Your task to perform on an android device: Open maps Image 0: 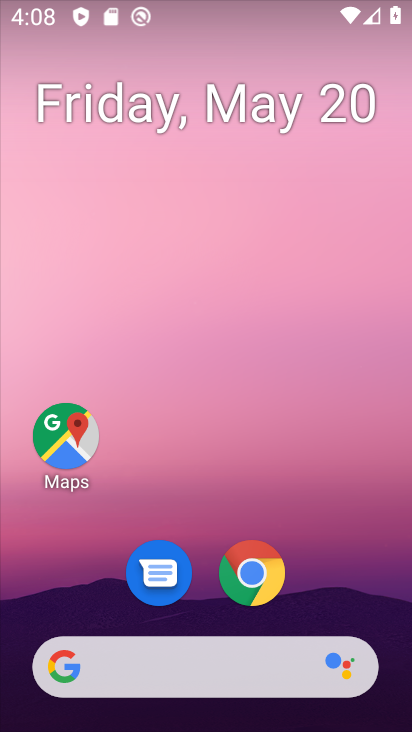
Step 0: click (62, 431)
Your task to perform on an android device: Open maps Image 1: 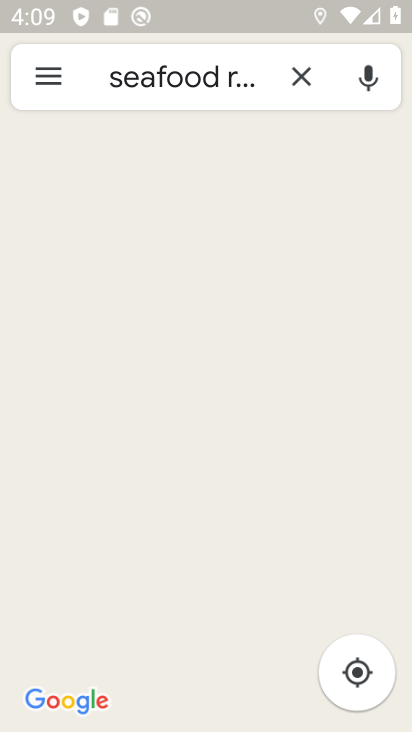
Step 1: task complete